Your task to perform on an android device: turn notification dots off Image 0: 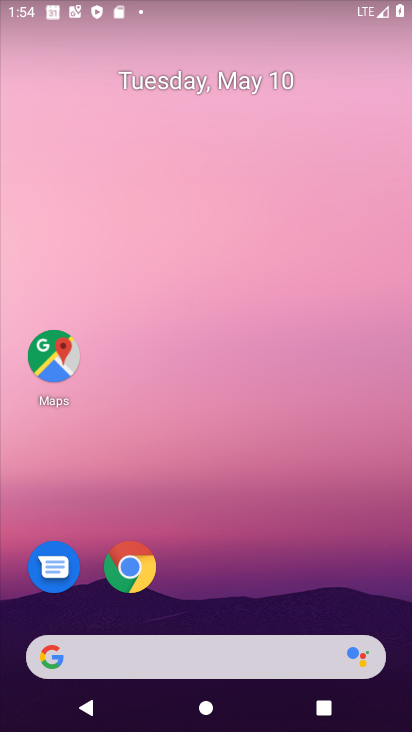
Step 0: drag from (396, 663) to (250, 65)
Your task to perform on an android device: turn notification dots off Image 1: 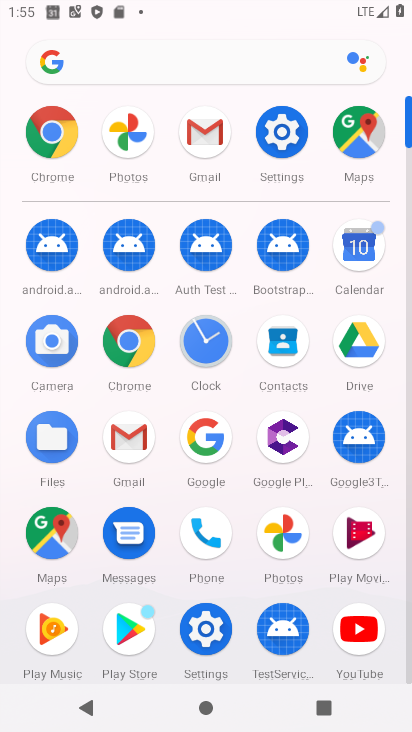
Step 1: click (215, 620)
Your task to perform on an android device: turn notification dots off Image 2: 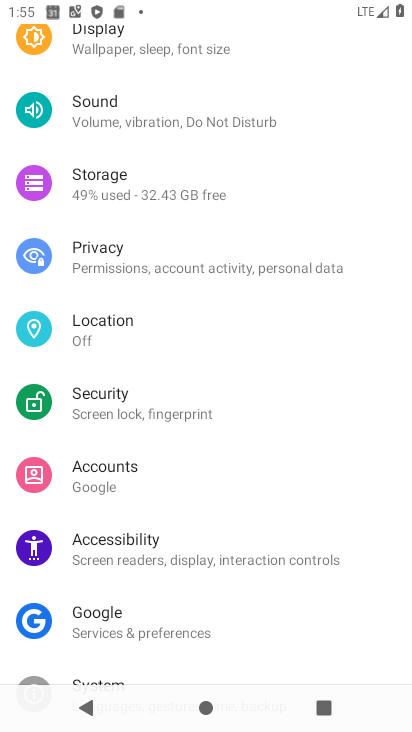
Step 2: drag from (203, 624) to (213, 244)
Your task to perform on an android device: turn notification dots off Image 3: 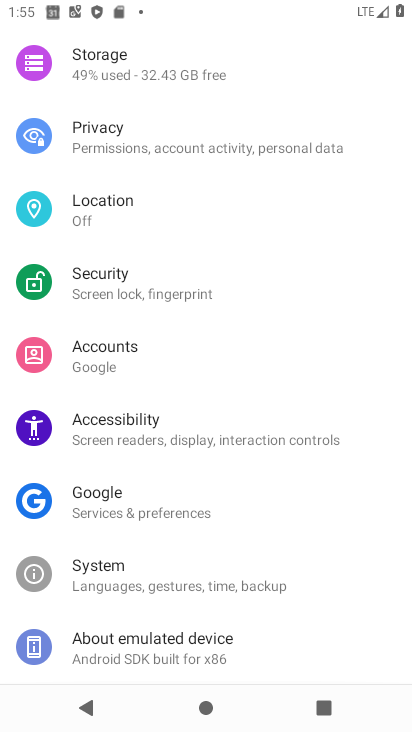
Step 3: drag from (175, 157) to (155, 647)
Your task to perform on an android device: turn notification dots off Image 4: 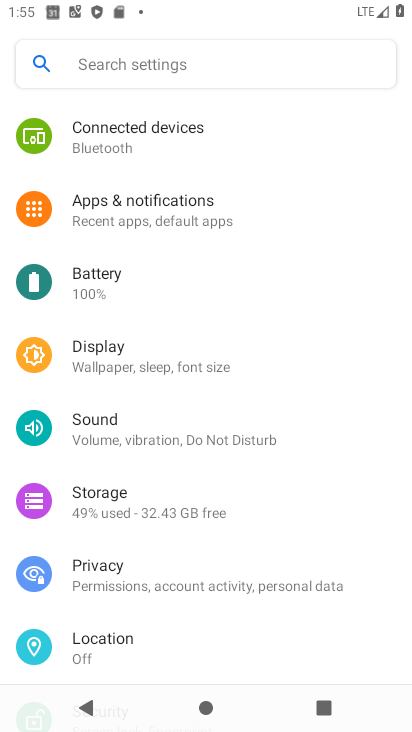
Step 4: click (216, 232)
Your task to perform on an android device: turn notification dots off Image 5: 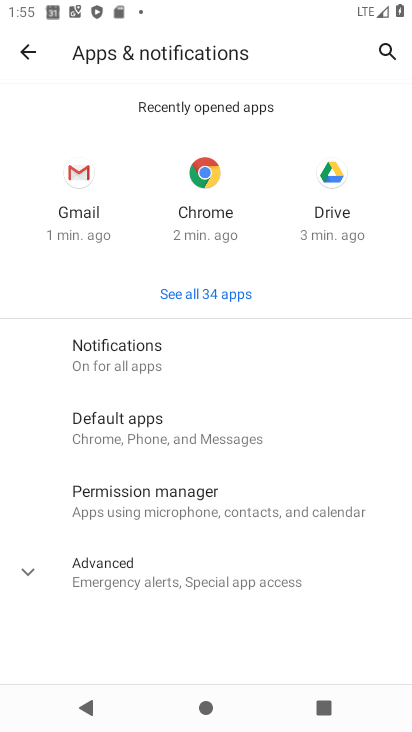
Step 5: click (160, 348)
Your task to perform on an android device: turn notification dots off Image 6: 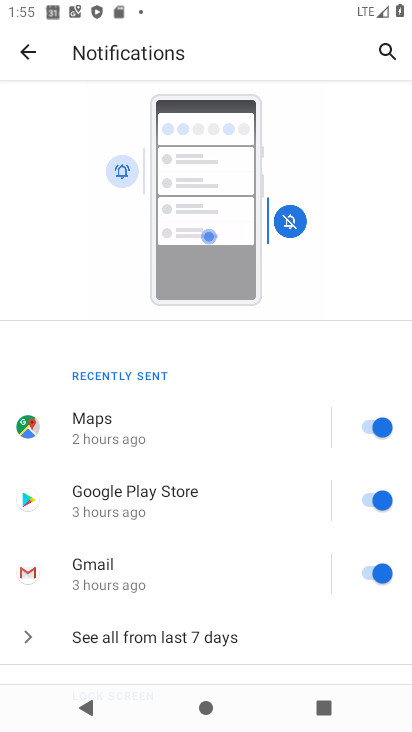
Step 6: drag from (186, 645) to (153, 71)
Your task to perform on an android device: turn notification dots off Image 7: 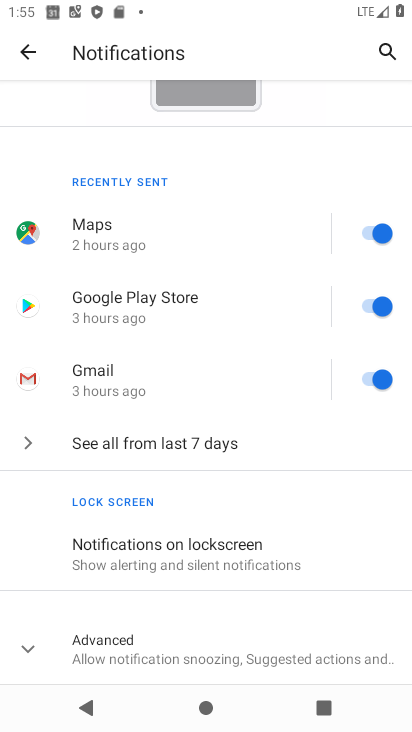
Step 7: click (125, 644)
Your task to perform on an android device: turn notification dots off Image 8: 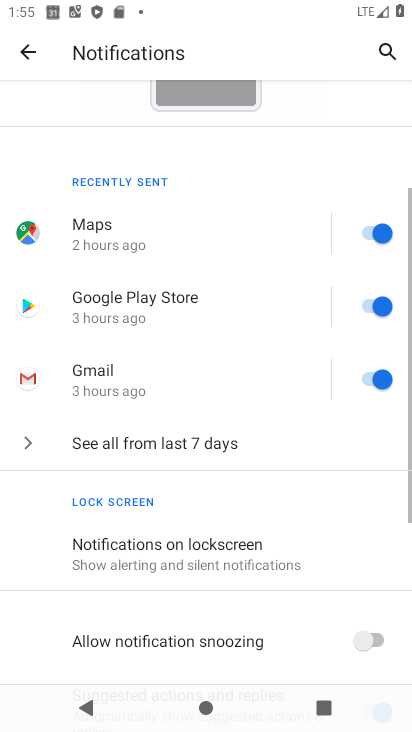
Step 8: drag from (142, 642) to (203, 162)
Your task to perform on an android device: turn notification dots off Image 9: 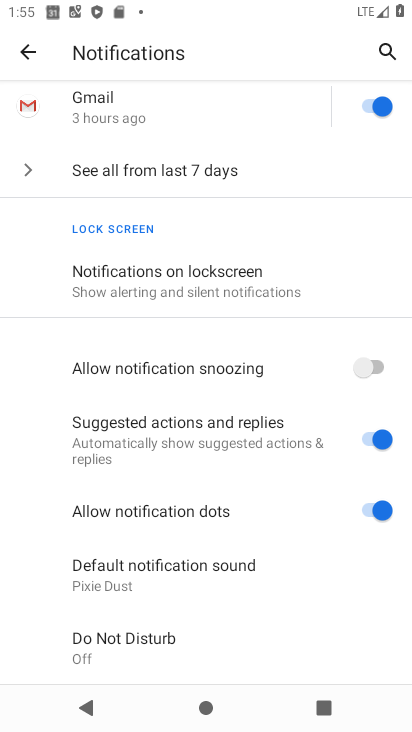
Step 9: click (271, 506)
Your task to perform on an android device: turn notification dots off Image 10: 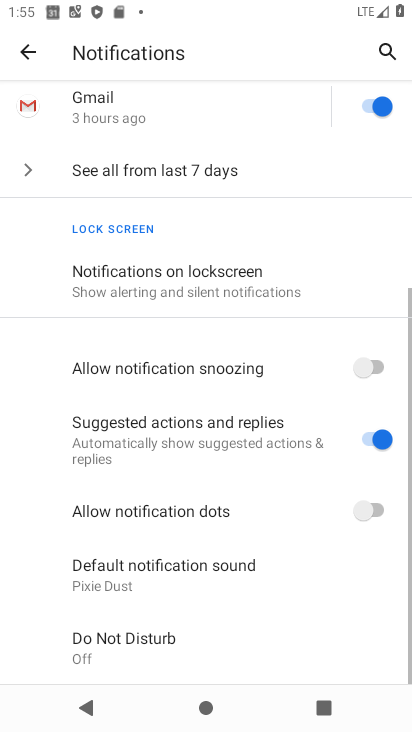
Step 10: task complete